Your task to perform on an android device: turn on location history Image 0: 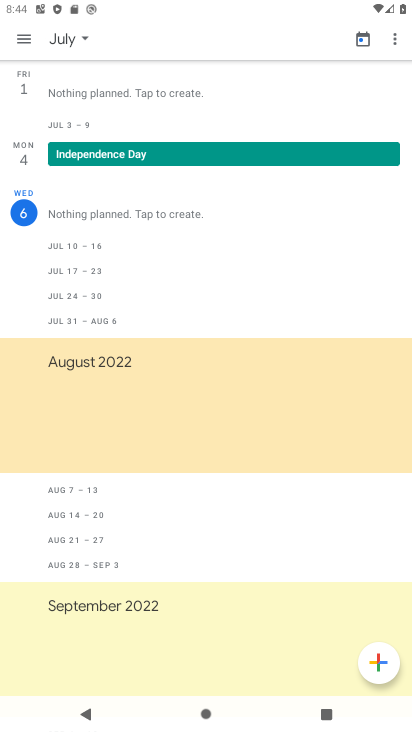
Step 0: press home button
Your task to perform on an android device: turn on location history Image 1: 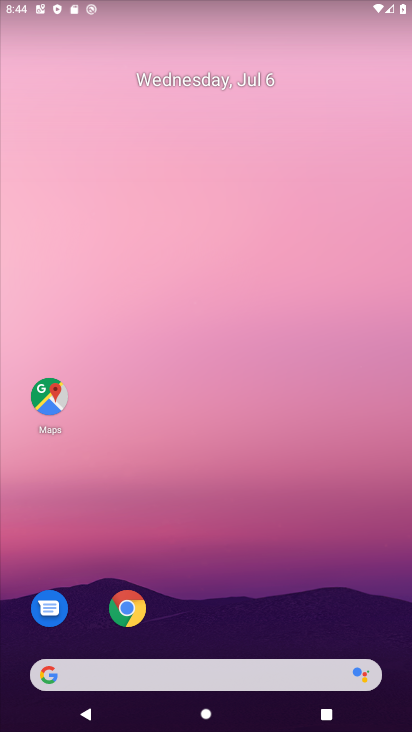
Step 1: drag from (223, 653) to (185, 289)
Your task to perform on an android device: turn on location history Image 2: 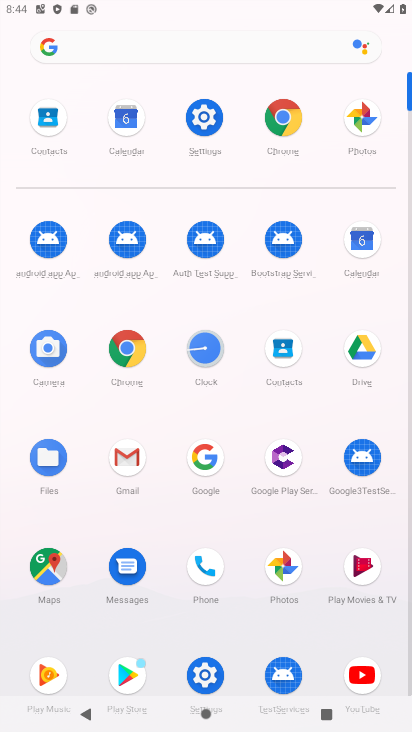
Step 2: click (208, 124)
Your task to perform on an android device: turn on location history Image 3: 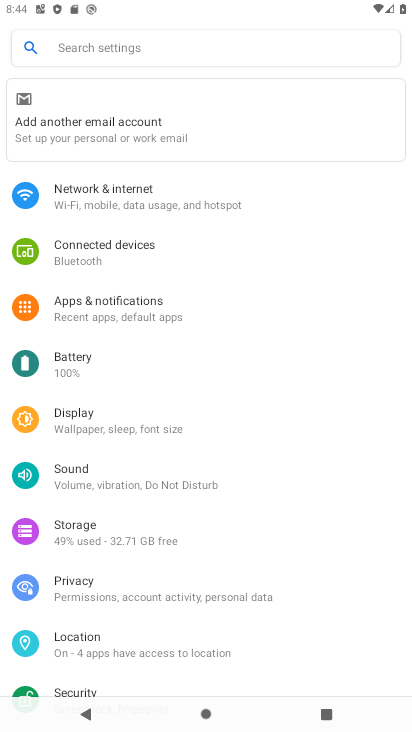
Step 3: click (102, 645)
Your task to perform on an android device: turn on location history Image 4: 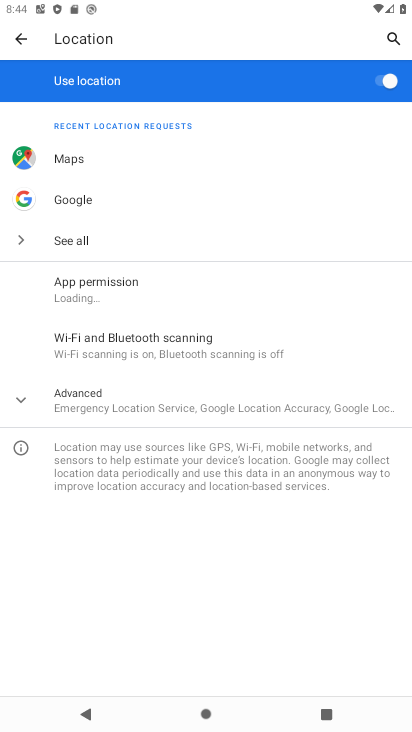
Step 4: click (104, 400)
Your task to perform on an android device: turn on location history Image 5: 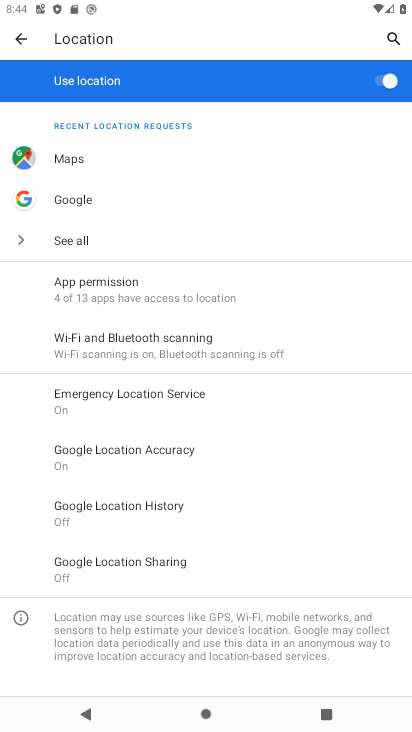
Step 5: click (130, 516)
Your task to perform on an android device: turn on location history Image 6: 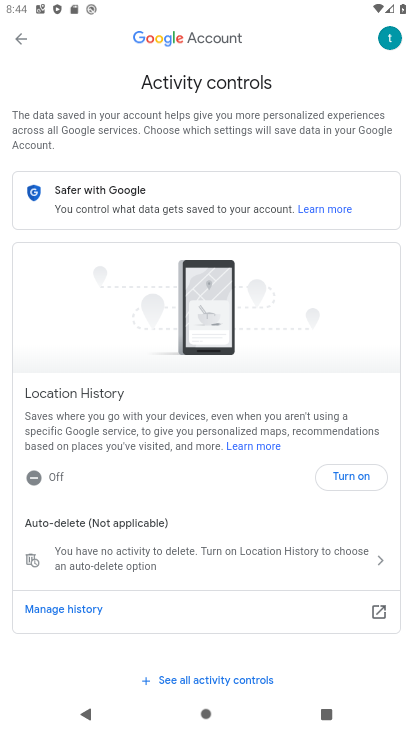
Step 6: click (343, 475)
Your task to perform on an android device: turn on location history Image 7: 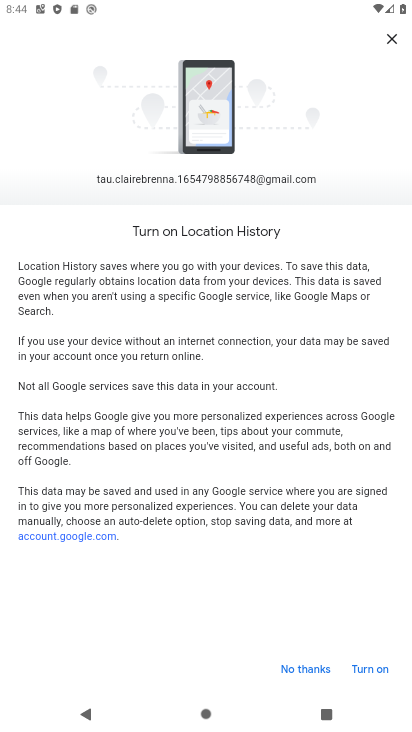
Step 7: click (366, 668)
Your task to perform on an android device: turn on location history Image 8: 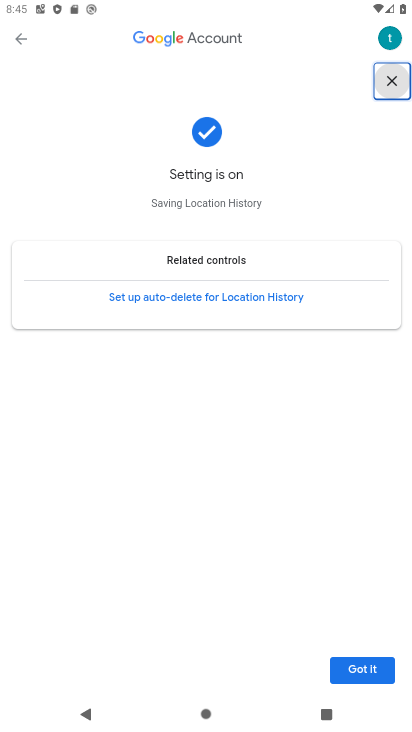
Step 8: click (367, 675)
Your task to perform on an android device: turn on location history Image 9: 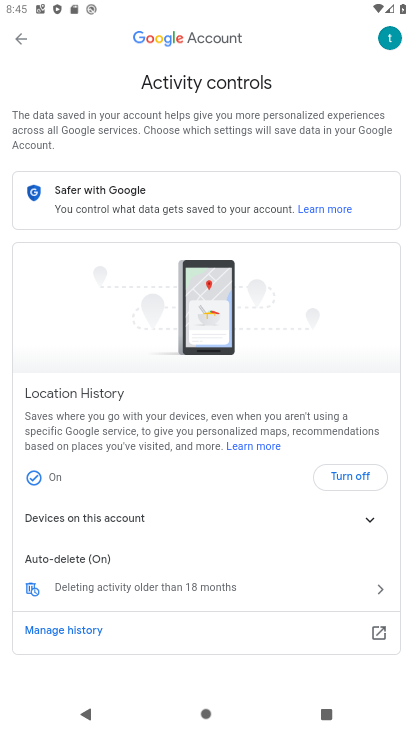
Step 9: task complete